Your task to perform on an android device: Toggle the flashlight Image 0: 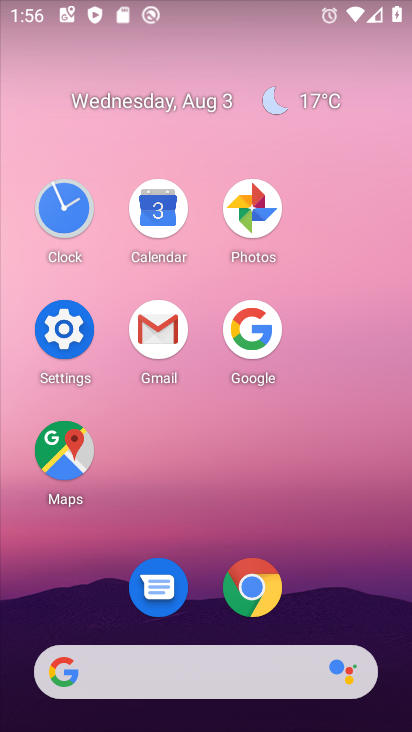
Step 0: drag from (226, 1) to (271, 499)
Your task to perform on an android device: Toggle the flashlight Image 1: 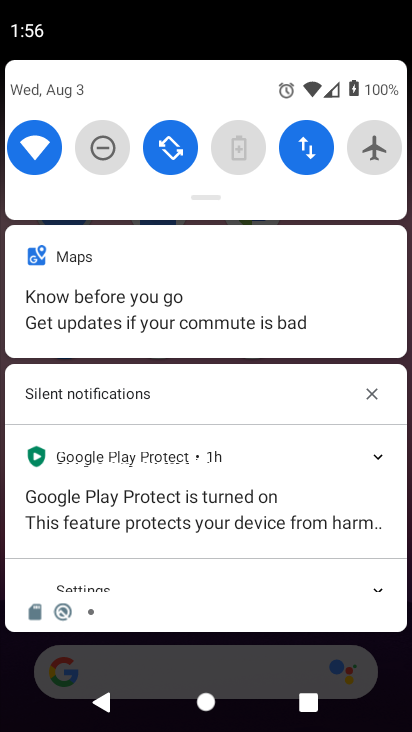
Step 1: task complete